Your task to perform on an android device: Open Google Image 0: 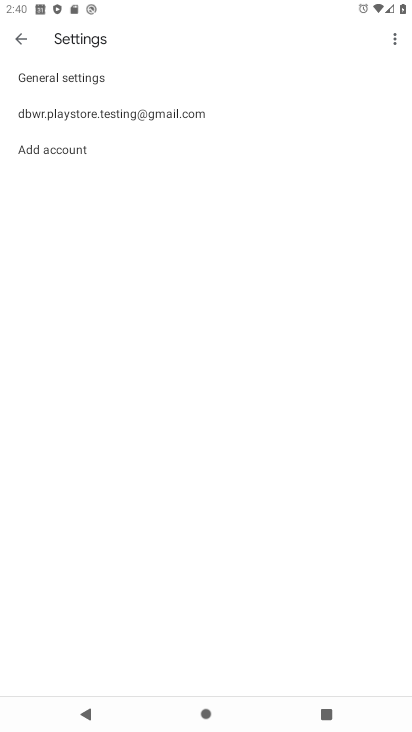
Step 0: press home button
Your task to perform on an android device: Open Google Image 1: 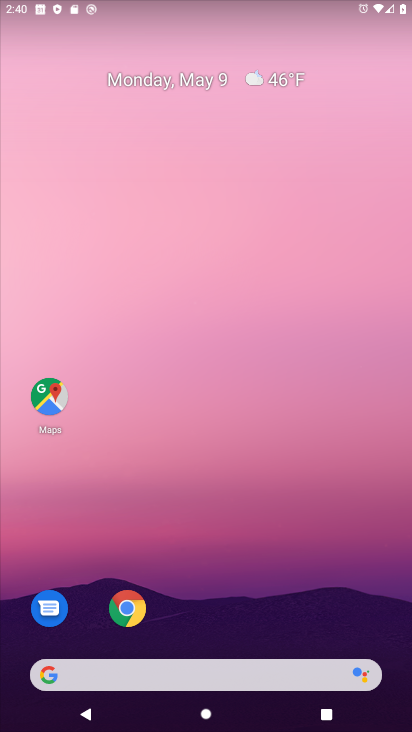
Step 1: drag from (192, 634) to (291, 297)
Your task to perform on an android device: Open Google Image 2: 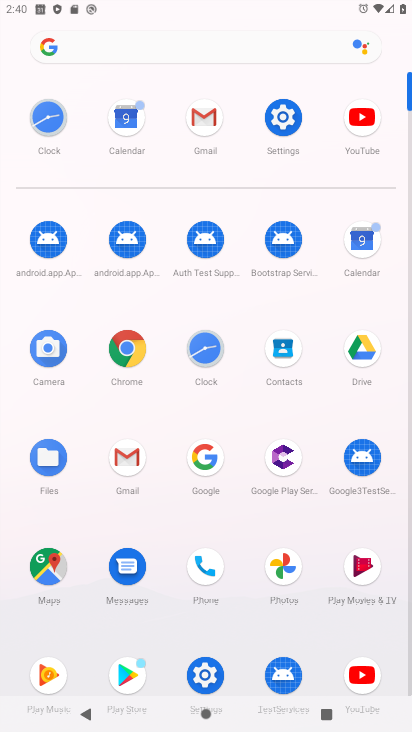
Step 2: click (203, 456)
Your task to perform on an android device: Open Google Image 3: 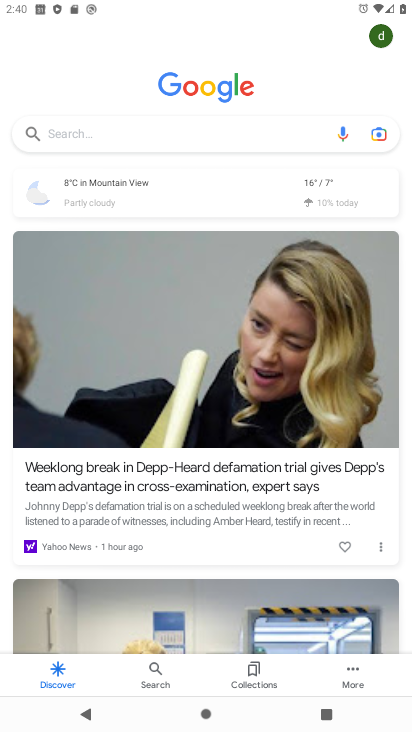
Step 3: task complete